Your task to perform on an android device: Open ESPN.com Image 0: 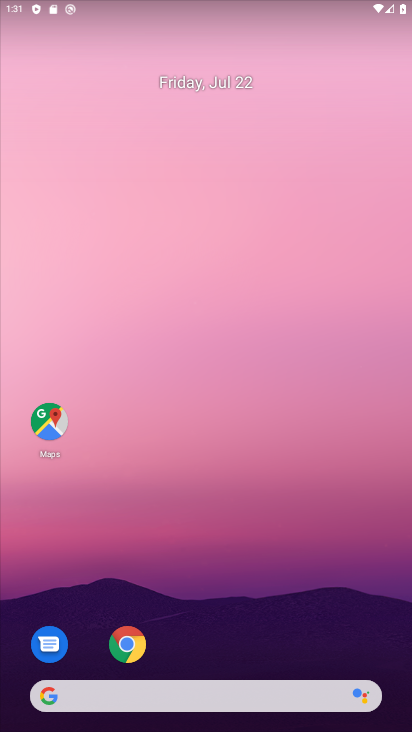
Step 0: drag from (239, 635) to (240, 242)
Your task to perform on an android device: Open ESPN.com Image 1: 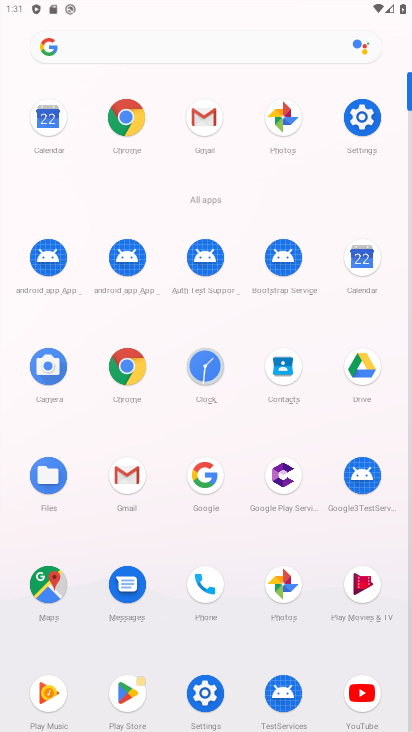
Step 1: click (126, 108)
Your task to perform on an android device: Open ESPN.com Image 2: 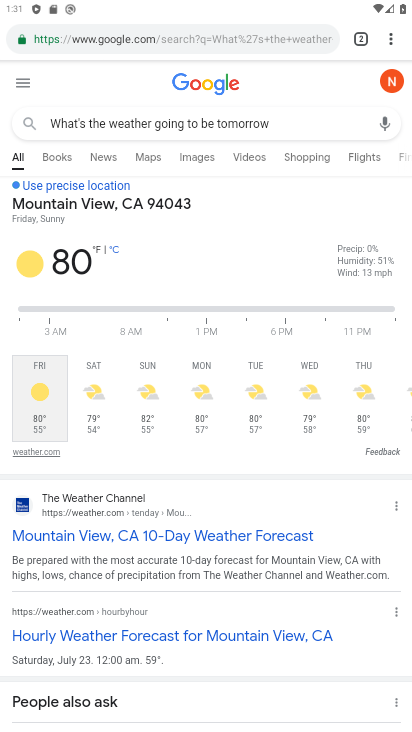
Step 2: click (390, 33)
Your task to perform on an android device: Open ESPN.com Image 3: 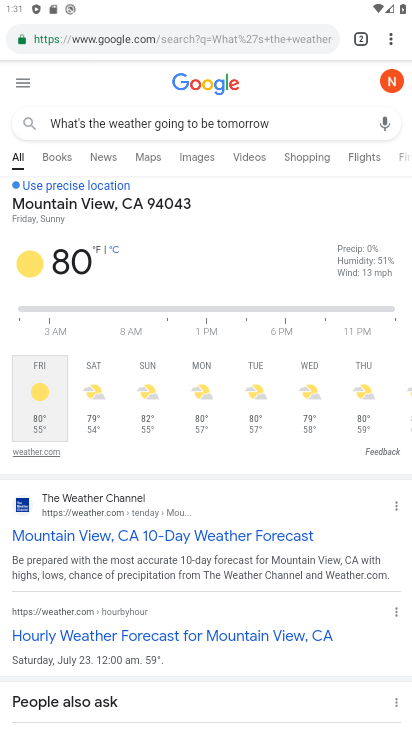
Step 3: click (389, 30)
Your task to perform on an android device: Open ESPN.com Image 4: 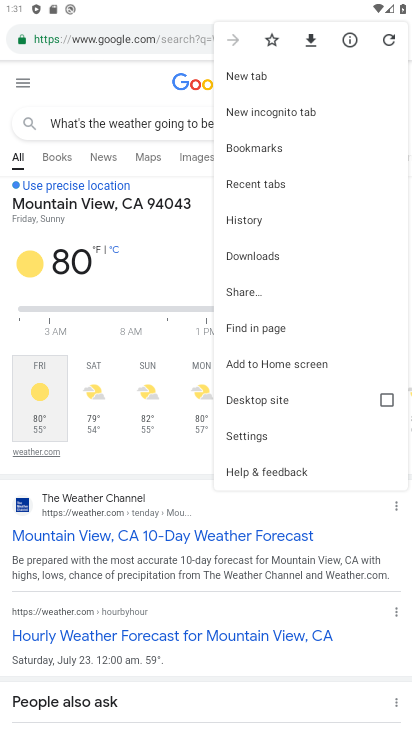
Step 4: click (259, 71)
Your task to perform on an android device: Open ESPN.com Image 5: 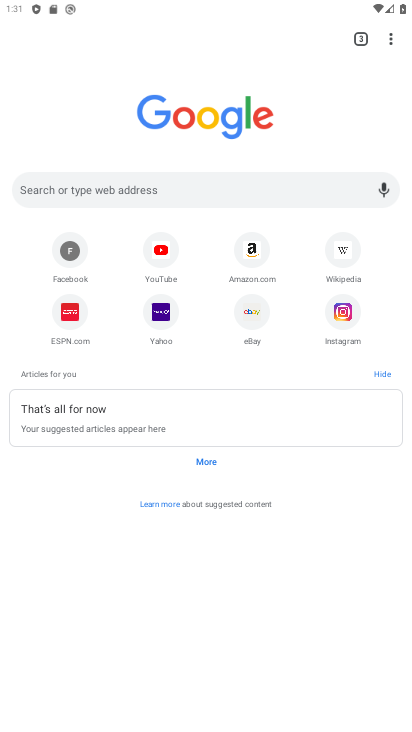
Step 5: click (63, 311)
Your task to perform on an android device: Open ESPN.com Image 6: 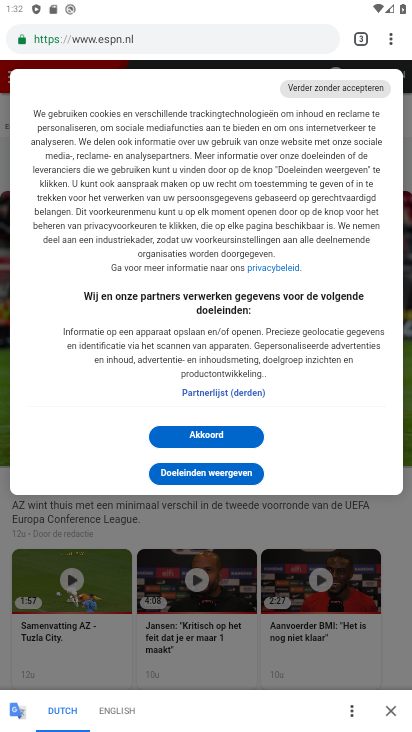
Step 6: task complete